Your task to perform on an android device: check the backup settings in the google photos Image 0: 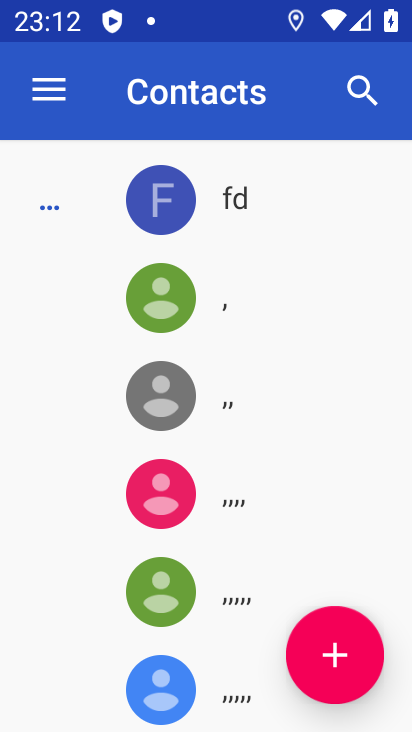
Step 0: press home button
Your task to perform on an android device: check the backup settings in the google photos Image 1: 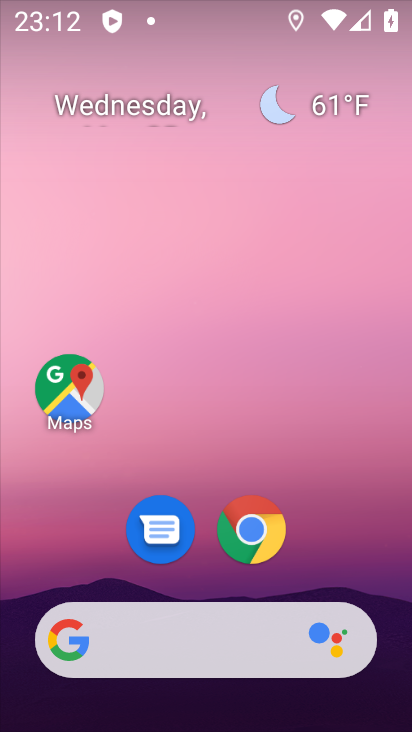
Step 1: drag from (382, 587) to (368, 189)
Your task to perform on an android device: check the backup settings in the google photos Image 2: 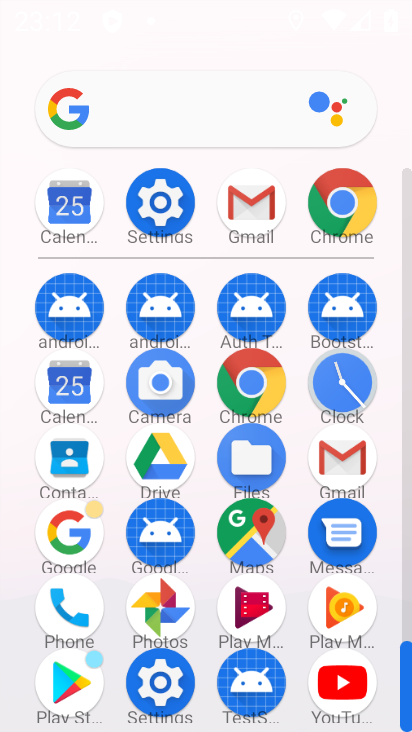
Step 2: click (158, 607)
Your task to perform on an android device: check the backup settings in the google photos Image 3: 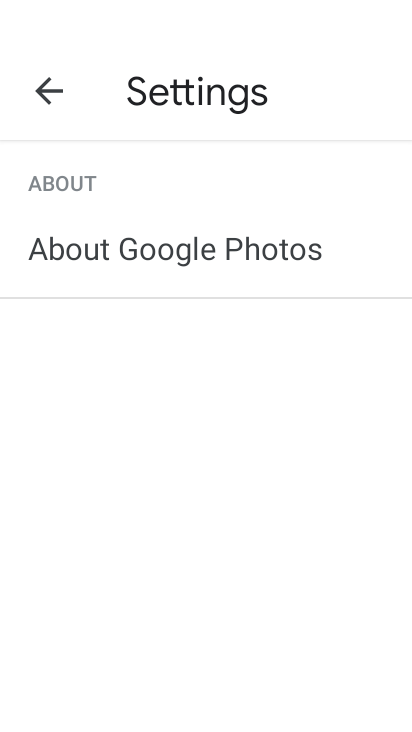
Step 3: click (50, 93)
Your task to perform on an android device: check the backup settings in the google photos Image 4: 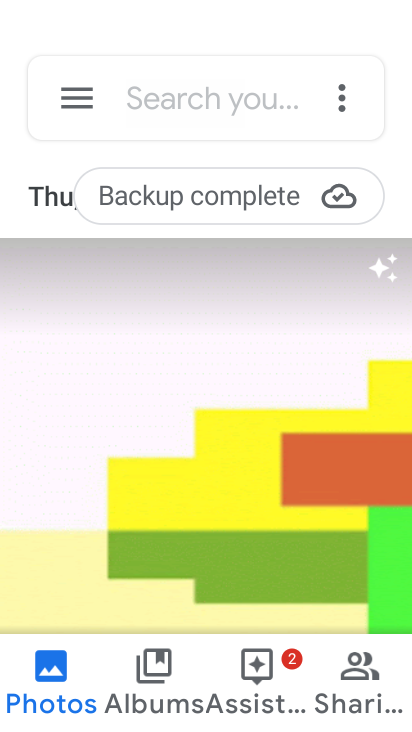
Step 4: click (72, 102)
Your task to perform on an android device: check the backup settings in the google photos Image 5: 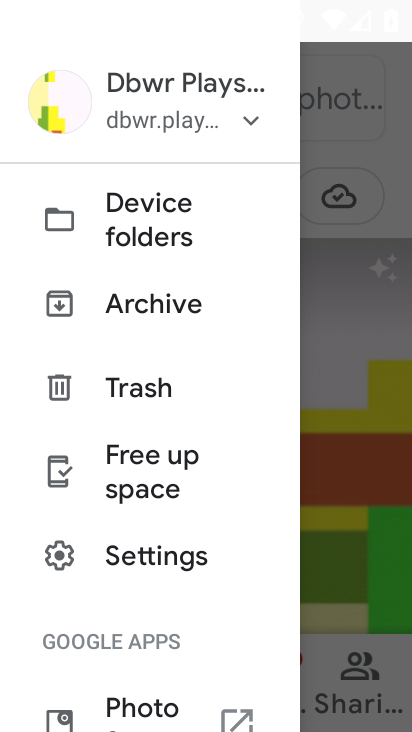
Step 5: click (189, 550)
Your task to perform on an android device: check the backup settings in the google photos Image 6: 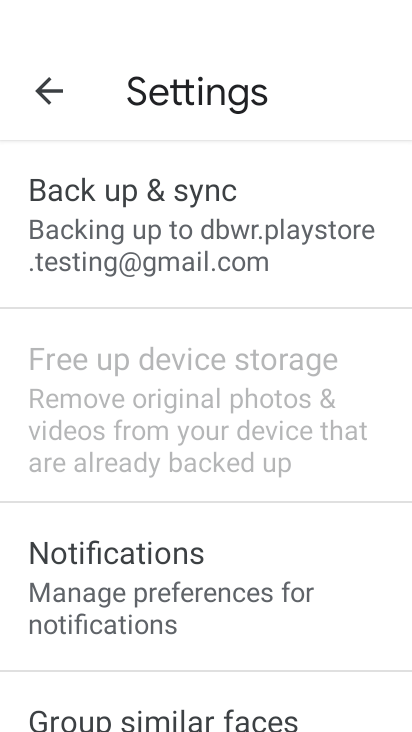
Step 6: click (213, 269)
Your task to perform on an android device: check the backup settings in the google photos Image 7: 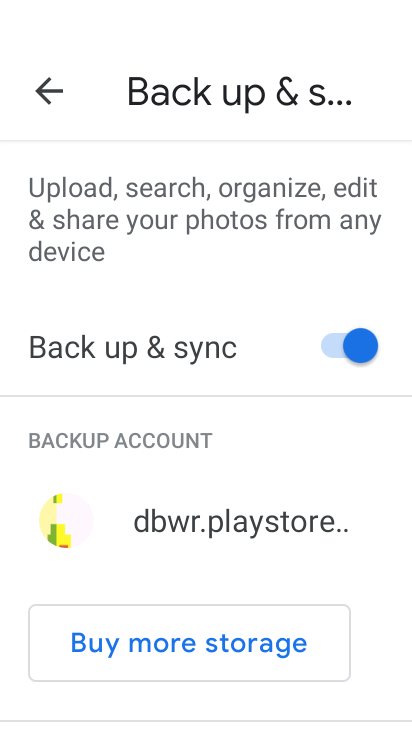
Step 7: task complete